Your task to perform on an android device: Open the map Image 0: 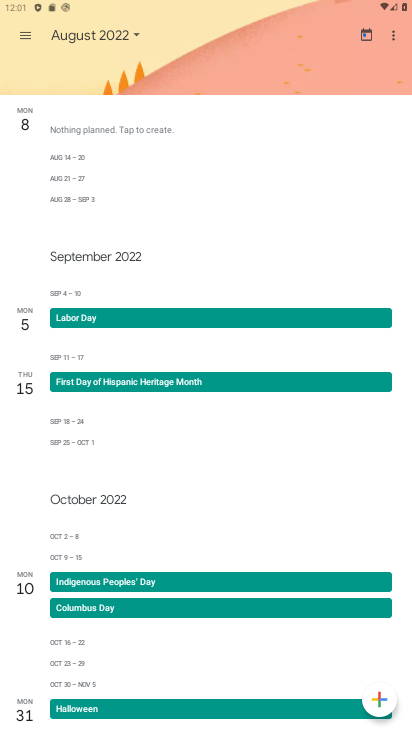
Step 0: press home button
Your task to perform on an android device: Open the map Image 1: 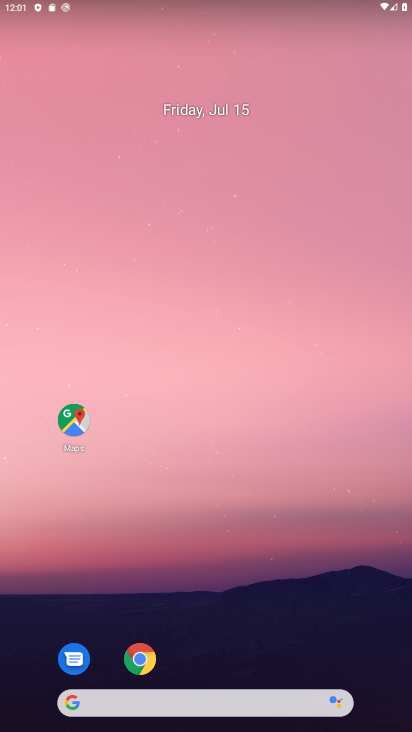
Step 1: click (76, 432)
Your task to perform on an android device: Open the map Image 2: 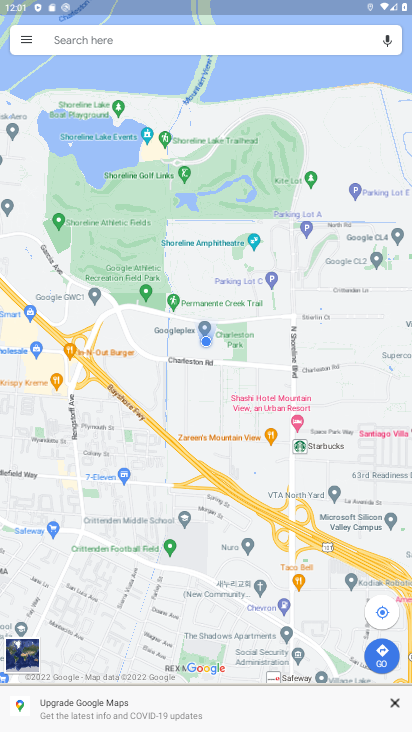
Step 2: task complete